Your task to perform on an android device: change notification settings in the gmail app Image 0: 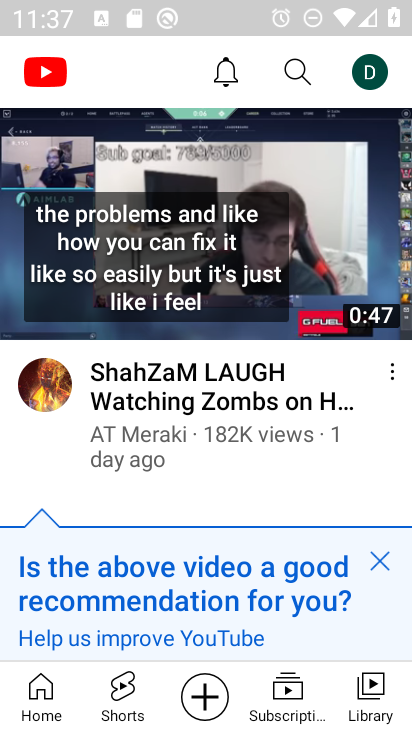
Step 0: press home button
Your task to perform on an android device: change notification settings in the gmail app Image 1: 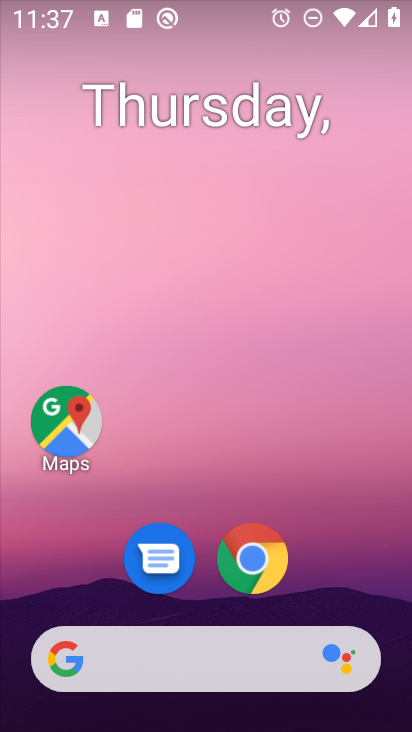
Step 1: drag from (376, 607) to (338, 144)
Your task to perform on an android device: change notification settings in the gmail app Image 2: 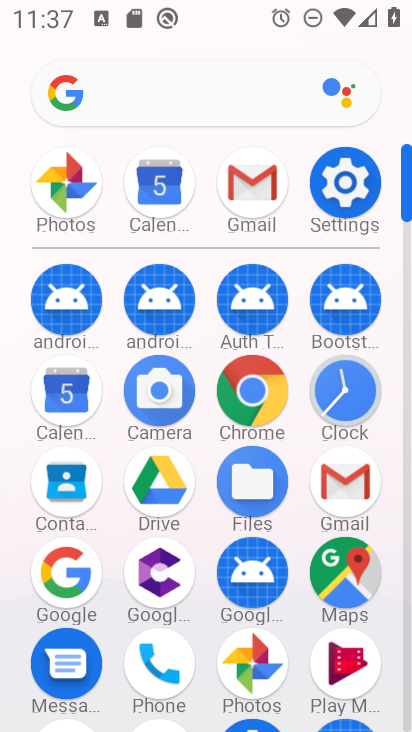
Step 2: click (343, 478)
Your task to perform on an android device: change notification settings in the gmail app Image 3: 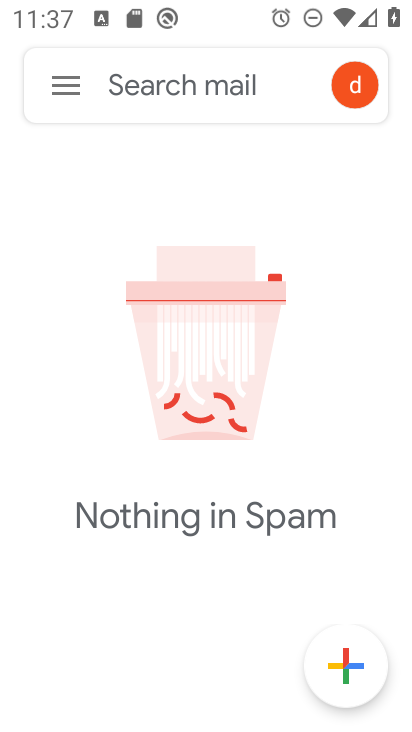
Step 3: click (57, 83)
Your task to perform on an android device: change notification settings in the gmail app Image 4: 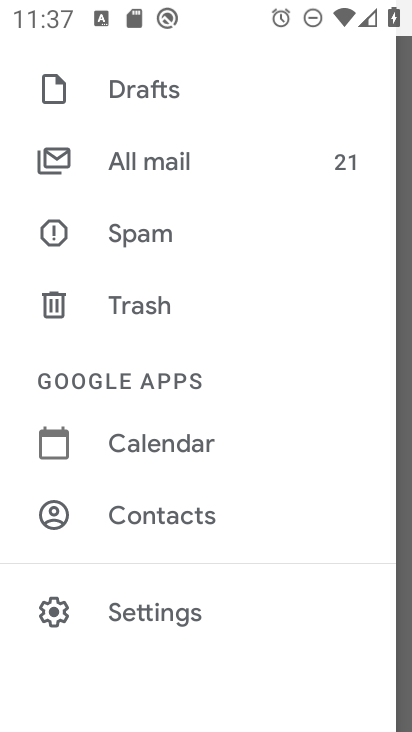
Step 4: click (133, 605)
Your task to perform on an android device: change notification settings in the gmail app Image 5: 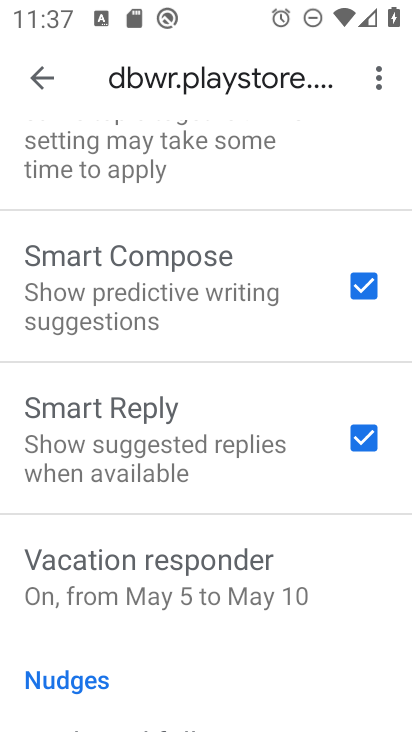
Step 5: drag from (329, 195) to (289, 467)
Your task to perform on an android device: change notification settings in the gmail app Image 6: 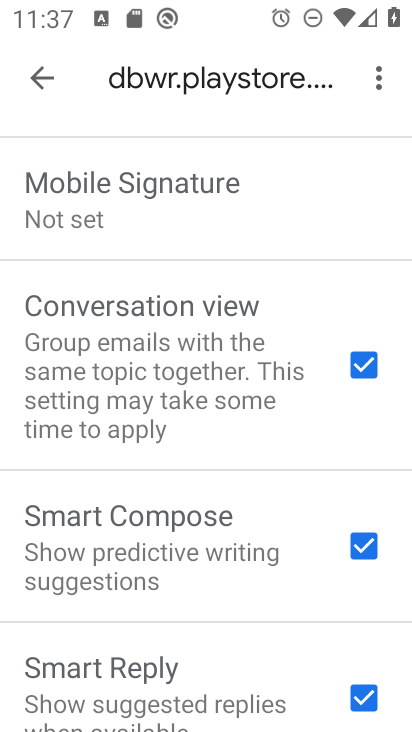
Step 6: drag from (319, 209) to (277, 500)
Your task to perform on an android device: change notification settings in the gmail app Image 7: 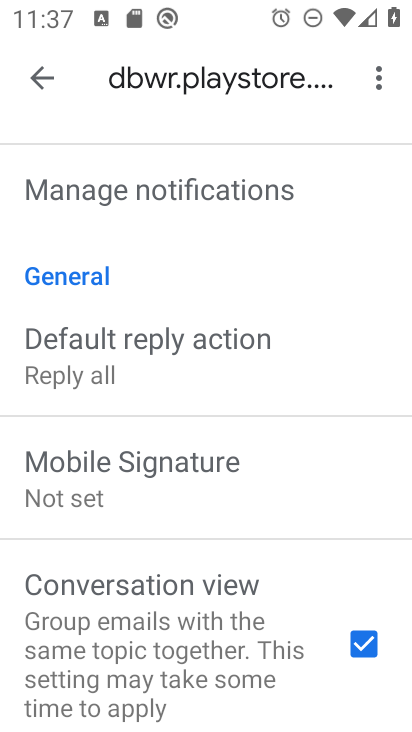
Step 7: drag from (308, 238) to (276, 460)
Your task to perform on an android device: change notification settings in the gmail app Image 8: 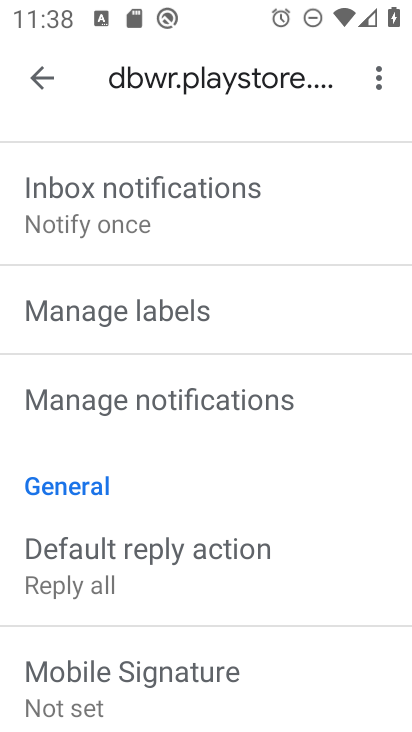
Step 8: click (82, 395)
Your task to perform on an android device: change notification settings in the gmail app Image 9: 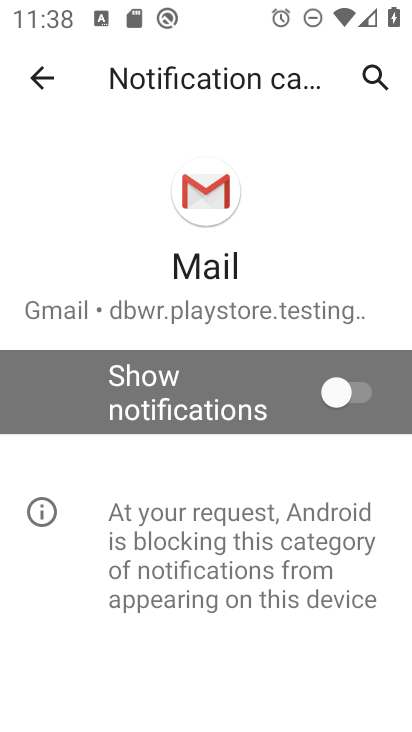
Step 9: click (356, 400)
Your task to perform on an android device: change notification settings in the gmail app Image 10: 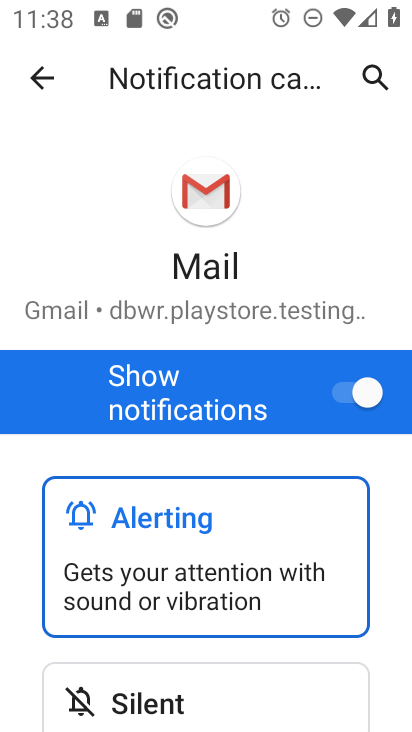
Step 10: task complete